Your task to perform on an android device: clear history in the chrome app Image 0: 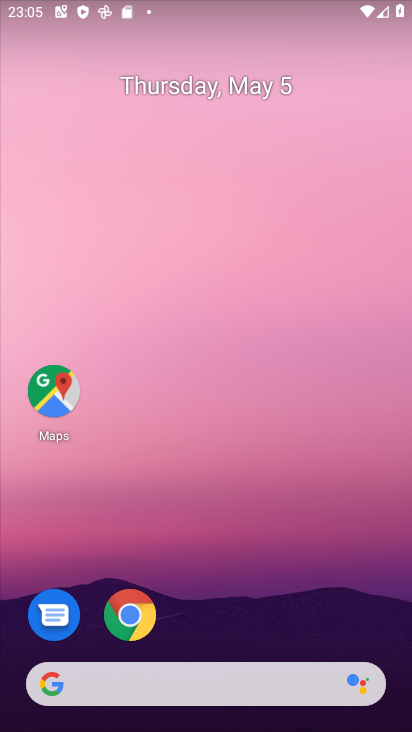
Step 0: click (136, 615)
Your task to perform on an android device: clear history in the chrome app Image 1: 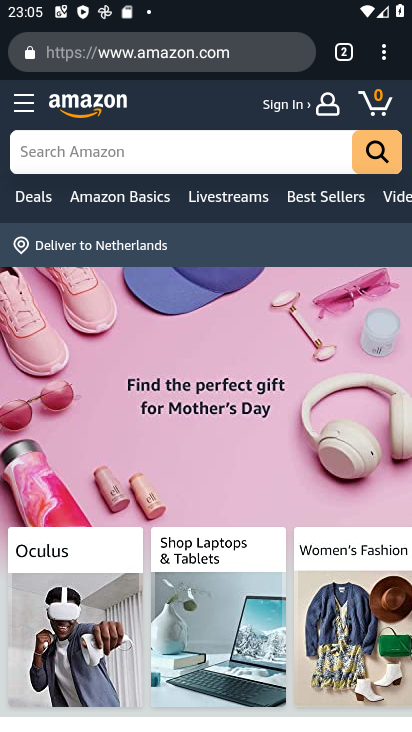
Step 1: click (381, 50)
Your task to perform on an android device: clear history in the chrome app Image 2: 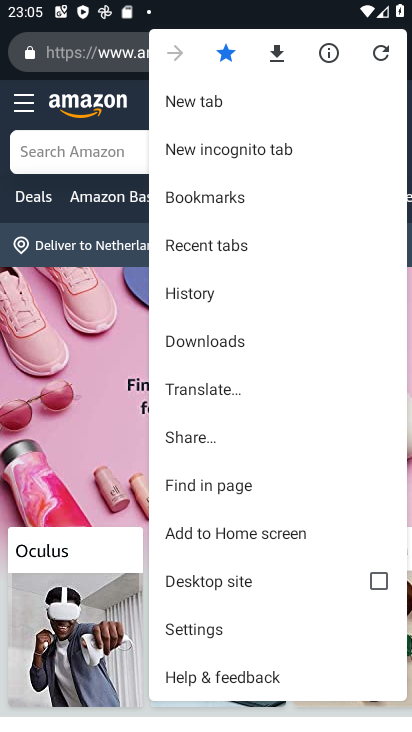
Step 2: drag from (211, 638) to (283, 343)
Your task to perform on an android device: clear history in the chrome app Image 3: 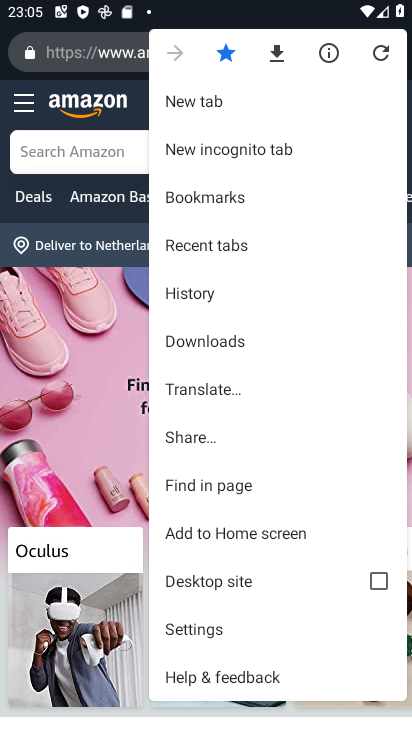
Step 3: click (215, 295)
Your task to perform on an android device: clear history in the chrome app Image 4: 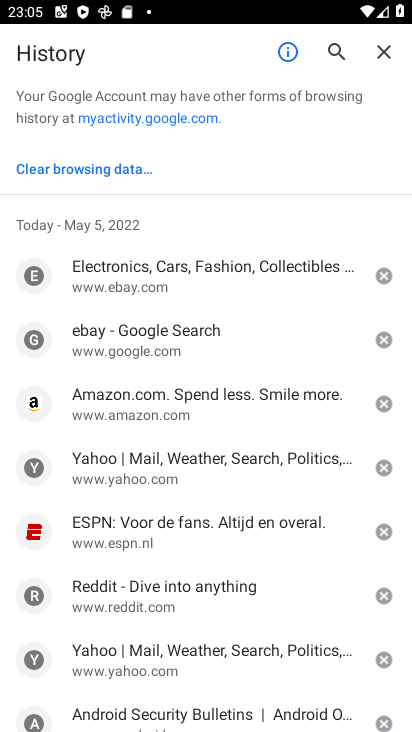
Step 4: click (111, 168)
Your task to perform on an android device: clear history in the chrome app Image 5: 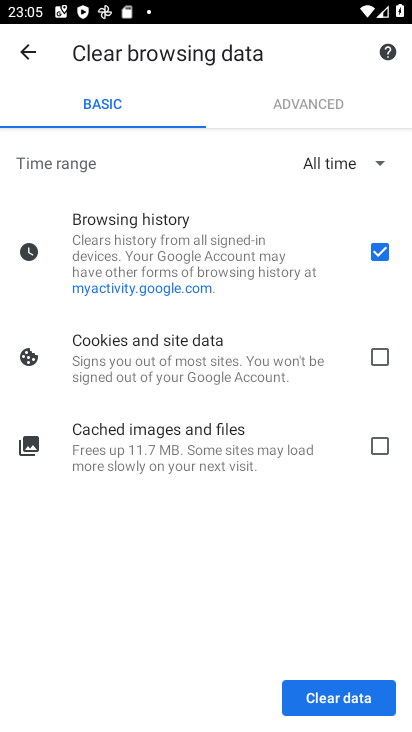
Step 5: click (335, 690)
Your task to perform on an android device: clear history in the chrome app Image 6: 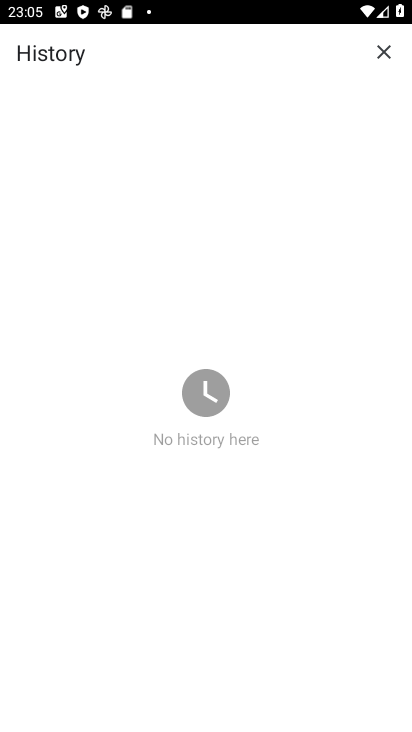
Step 6: task complete